Your task to perform on an android device: turn on javascript in the chrome app Image 0: 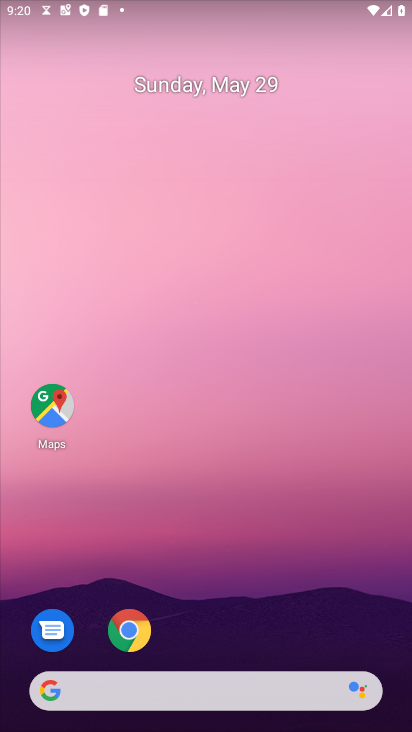
Step 0: click (136, 625)
Your task to perform on an android device: turn on javascript in the chrome app Image 1: 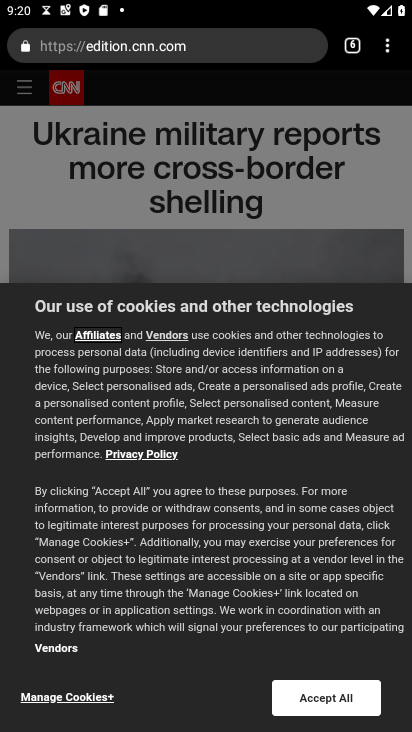
Step 1: click (394, 47)
Your task to perform on an android device: turn on javascript in the chrome app Image 2: 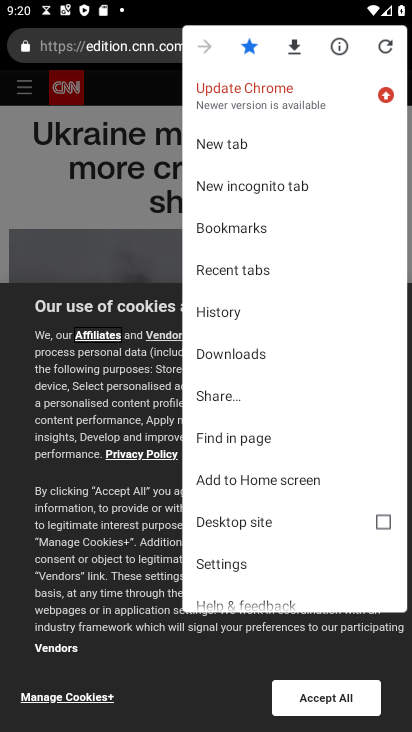
Step 2: click (230, 562)
Your task to perform on an android device: turn on javascript in the chrome app Image 3: 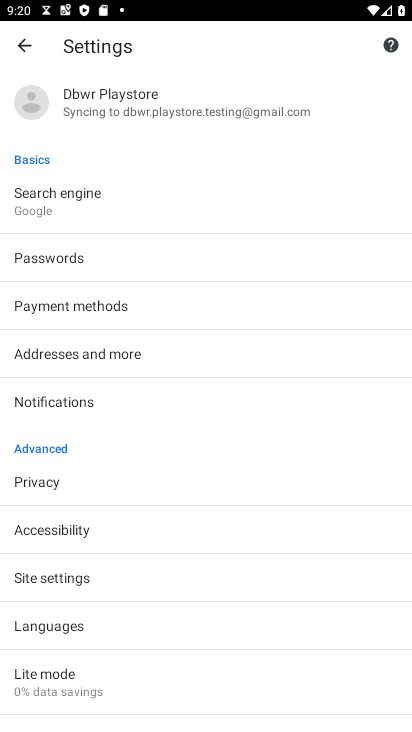
Step 3: click (104, 582)
Your task to perform on an android device: turn on javascript in the chrome app Image 4: 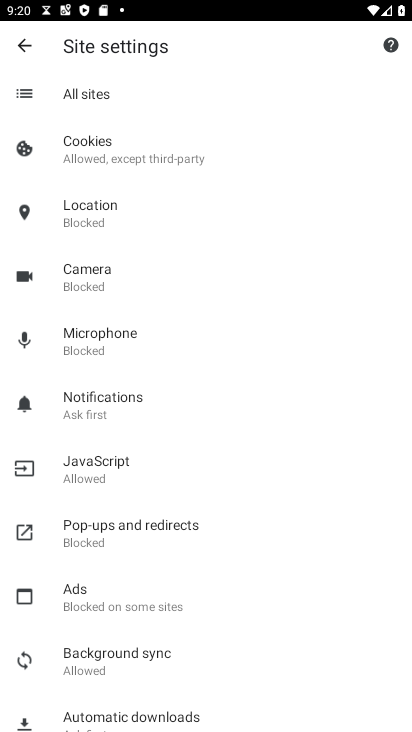
Step 4: click (95, 460)
Your task to perform on an android device: turn on javascript in the chrome app Image 5: 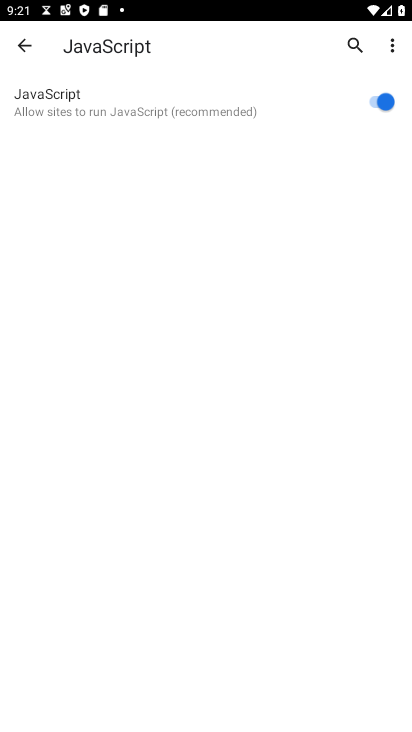
Step 5: task complete